Your task to perform on an android device: show emergency info Image 0: 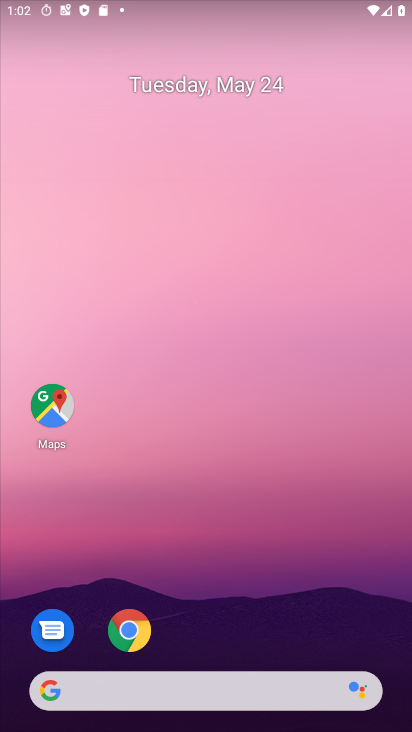
Step 0: drag from (205, 647) to (273, 6)
Your task to perform on an android device: show emergency info Image 1: 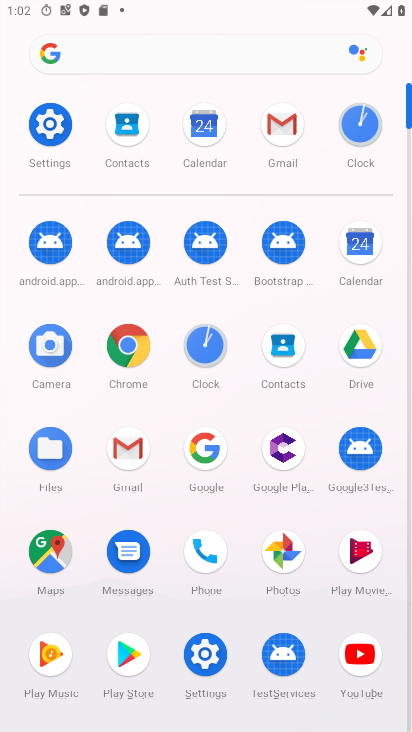
Step 1: click (42, 115)
Your task to perform on an android device: show emergency info Image 2: 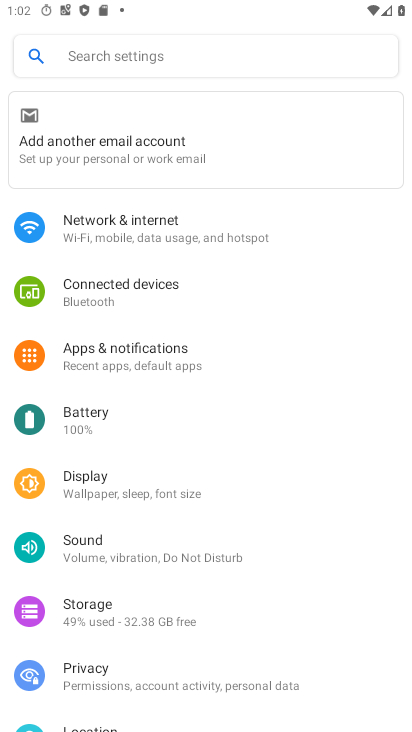
Step 2: drag from (370, 679) to (338, 51)
Your task to perform on an android device: show emergency info Image 3: 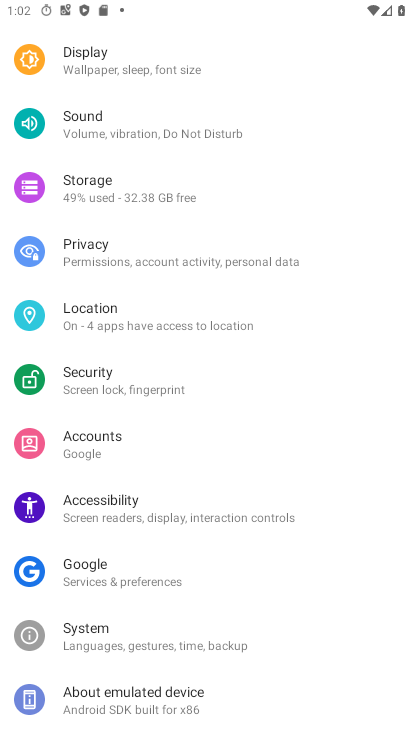
Step 3: click (134, 705)
Your task to perform on an android device: show emergency info Image 4: 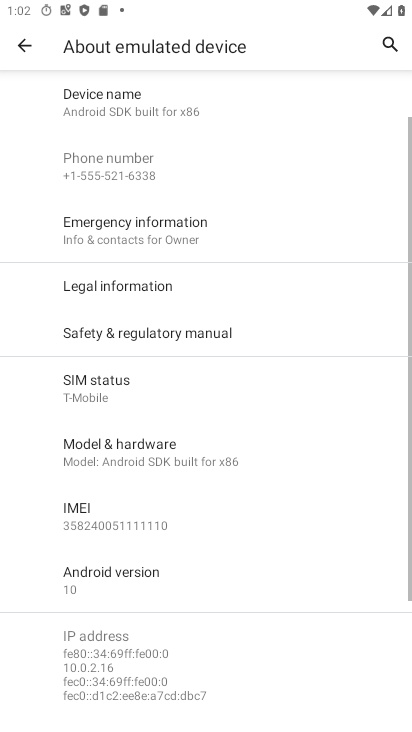
Step 4: click (112, 230)
Your task to perform on an android device: show emergency info Image 5: 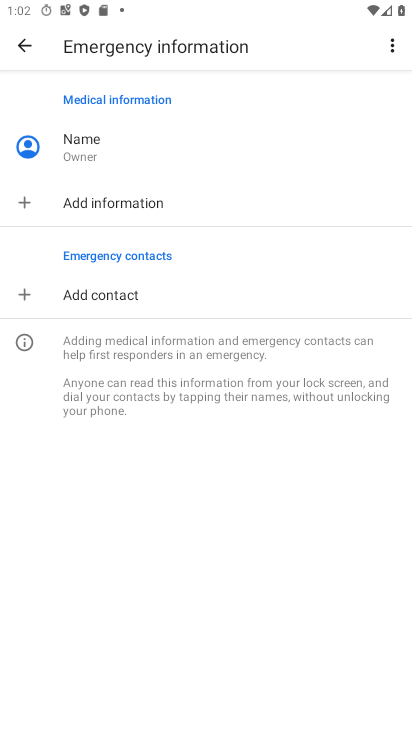
Step 5: task complete